Your task to perform on an android device: open chrome and create a bookmark for the current page Image 0: 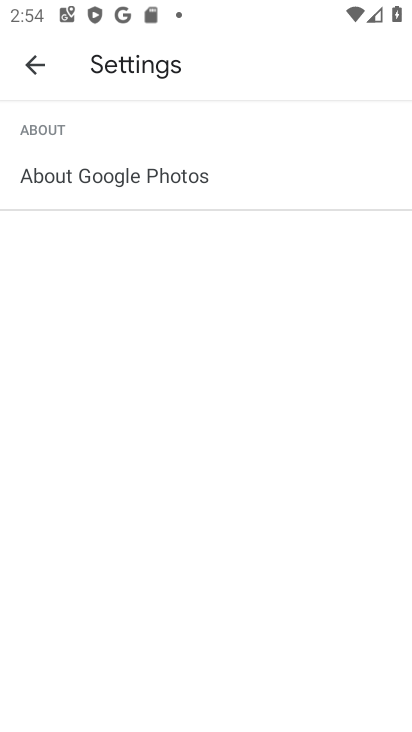
Step 0: press back button
Your task to perform on an android device: open chrome and create a bookmark for the current page Image 1: 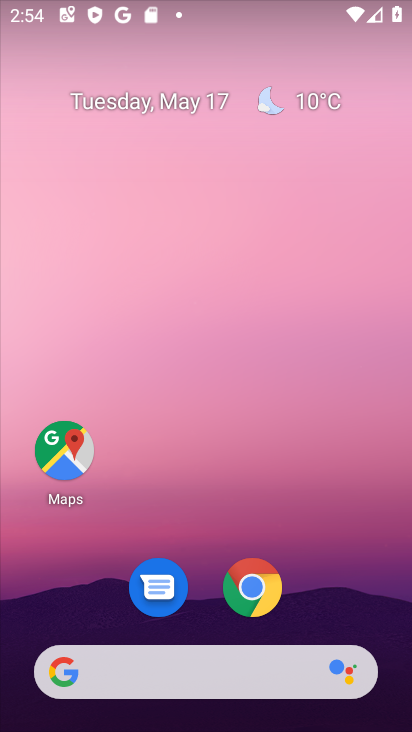
Step 1: drag from (290, 582) to (243, 46)
Your task to perform on an android device: open chrome and create a bookmark for the current page Image 2: 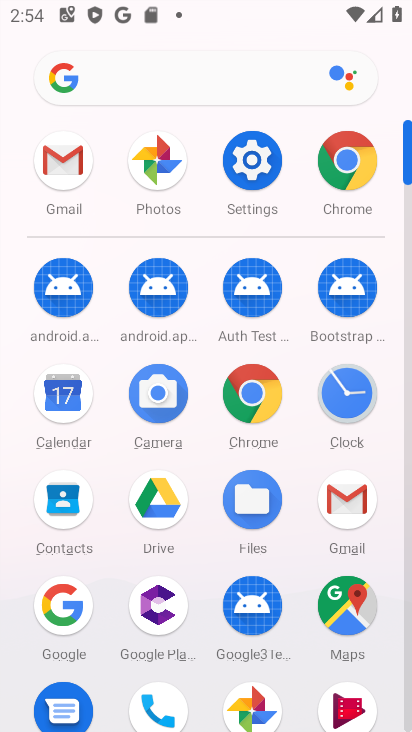
Step 2: click (249, 388)
Your task to perform on an android device: open chrome and create a bookmark for the current page Image 3: 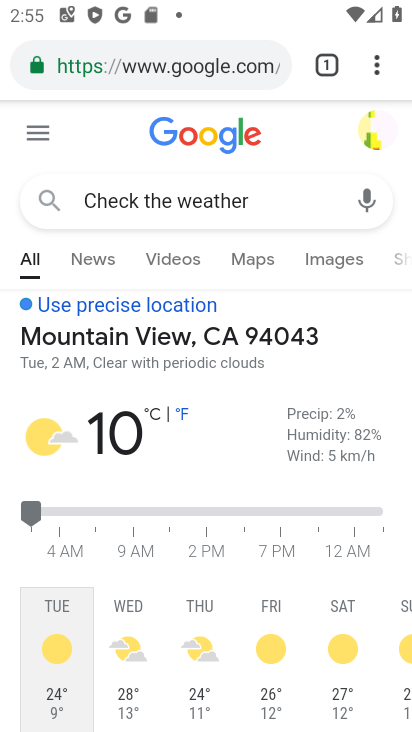
Step 3: task complete